Your task to perform on an android device: change alarm snooze length Image 0: 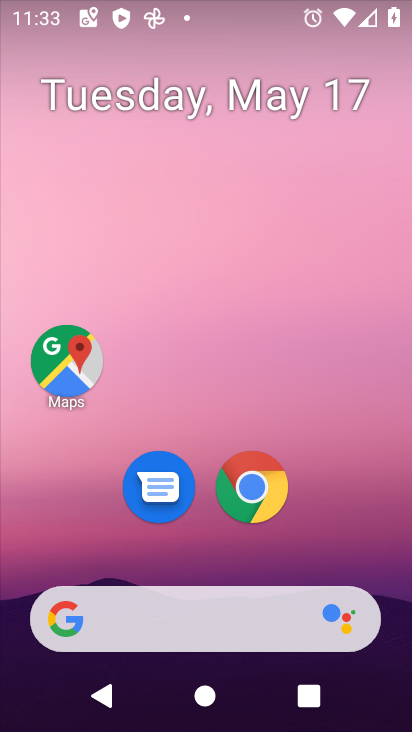
Step 0: press home button
Your task to perform on an android device: change alarm snooze length Image 1: 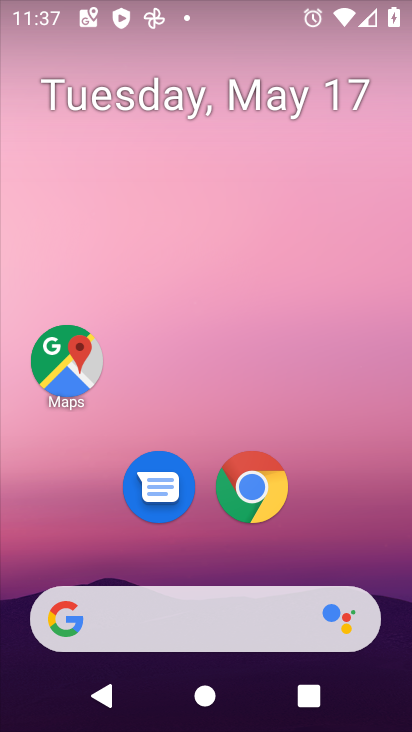
Step 1: drag from (350, 493) to (389, 0)
Your task to perform on an android device: change alarm snooze length Image 2: 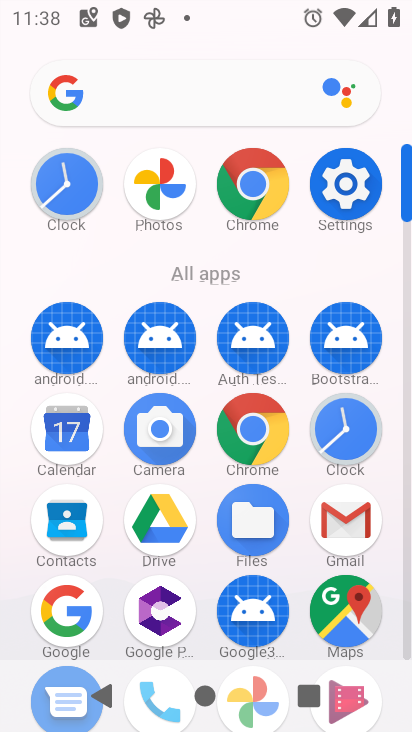
Step 2: click (317, 418)
Your task to perform on an android device: change alarm snooze length Image 3: 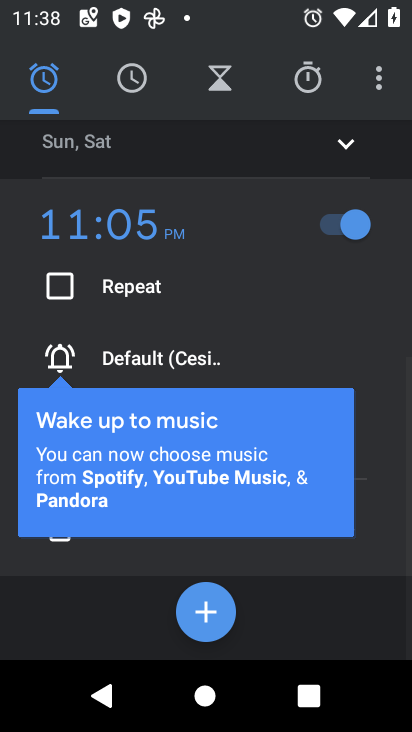
Step 3: click (365, 68)
Your task to perform on an android device: change alarm snooze length Image 4: 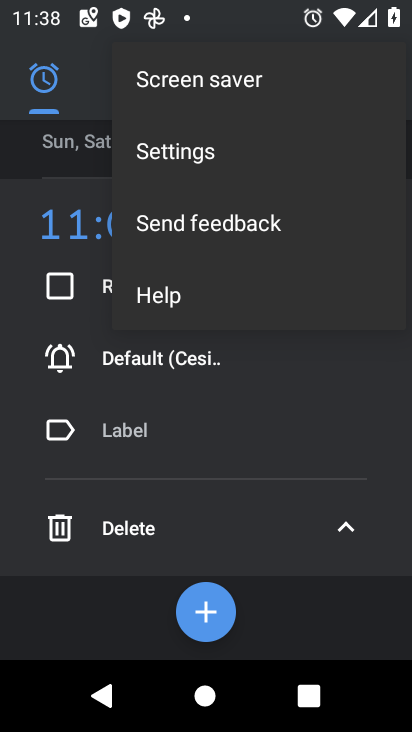
Step 4: click (212, 147)
Your task to perform on an android device: change alarm snooze length Image 5: 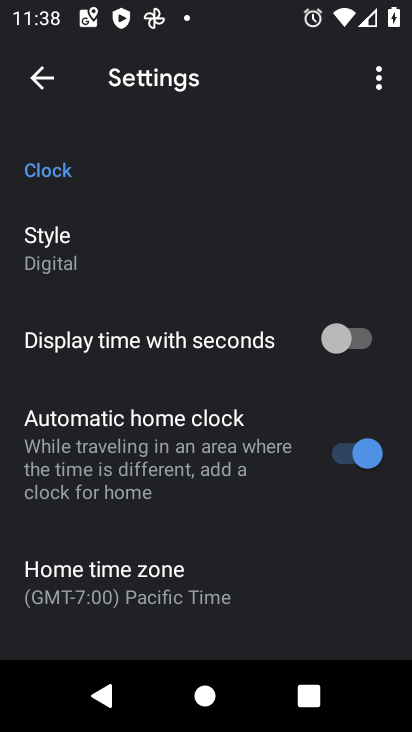
Step 5: drag from (209, 538) to (261, 15)
Your task to perform on an android device: change alarm snooze length Image 6: 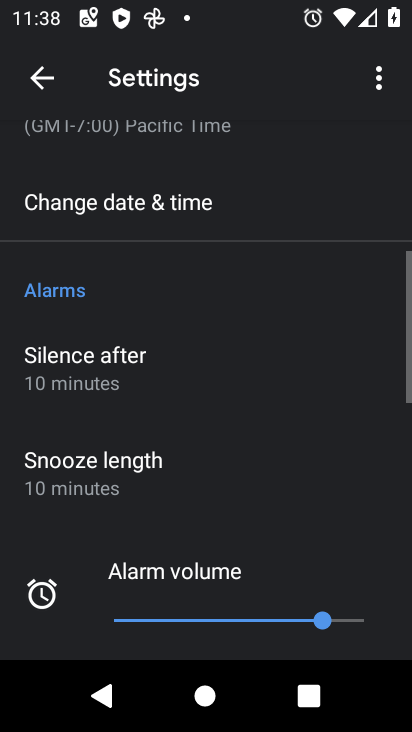
Step 6: click (148, 449)
Your task to perform on an android device: change alarm snooze length Image 7: 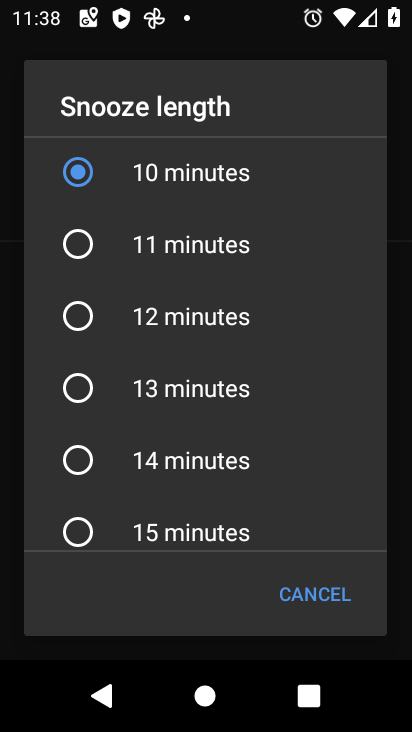
Step 7: click (130, 532)
Your task to perform on an android device: change alarm snooze length Image 8: 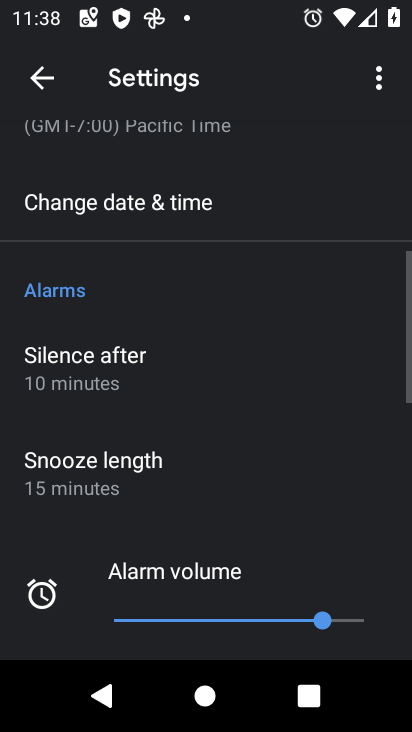
Step 8: task complete